Your task to perform on an android device: Search for vegetarian restaurants on Maps Image 0: 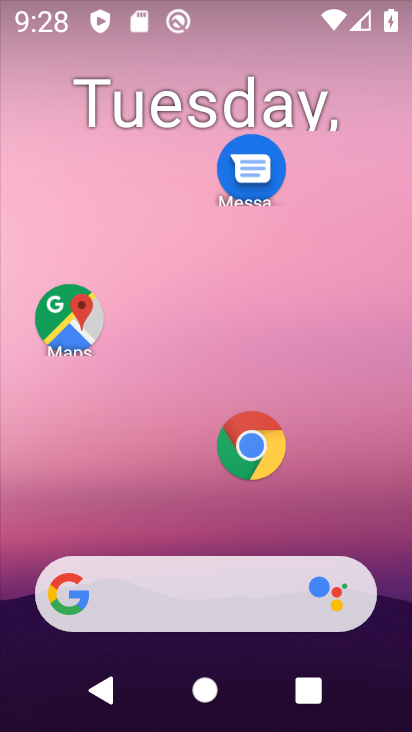
Step 0: click (74, 312)
Your task to perform on an android device: Search for vegetarian restaurants on Maps Image 1: 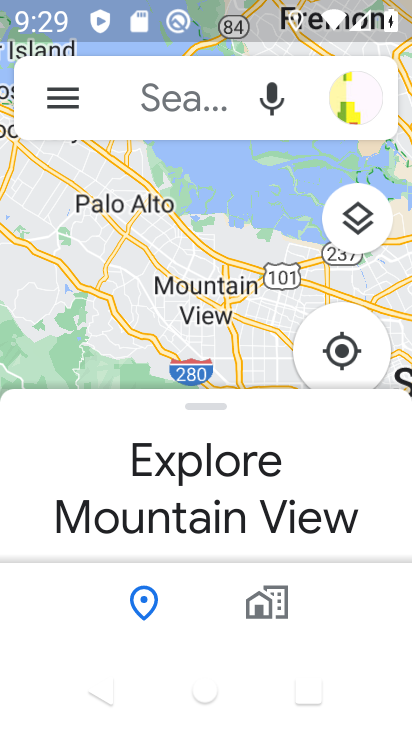
Step 1: click (157, 100)
Your task to perform on an android device: Search for vegetarian restaurants on Maps Image 2: 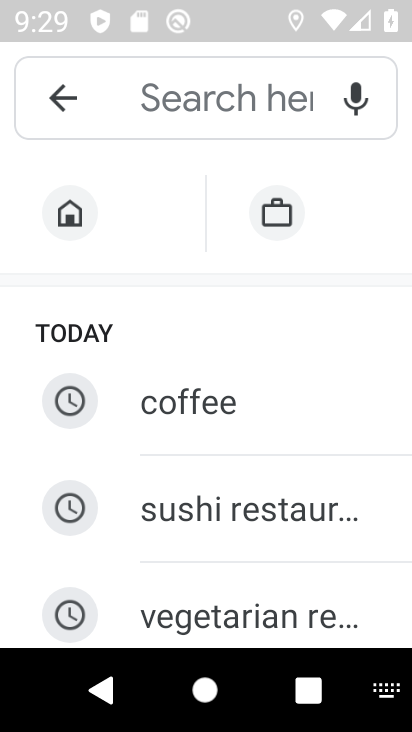
Step 2: click (210, 621)
Your task to perform on an android device: Search for vegetarian restaurants on Maps Image 3: 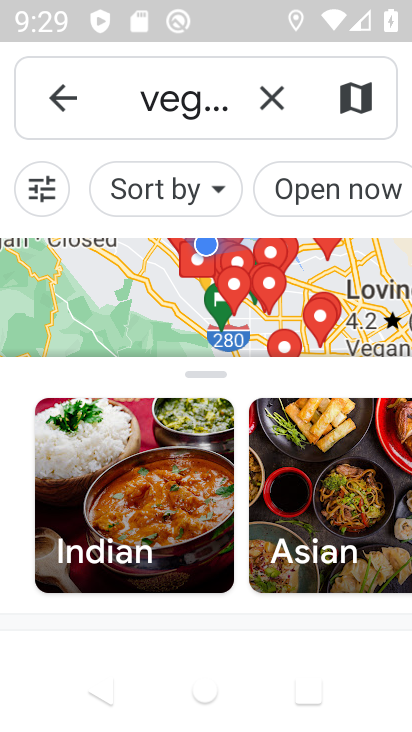
Step 3: task complete